Your task to perform on an android device: turn on javascript in the chrome app Image 0: 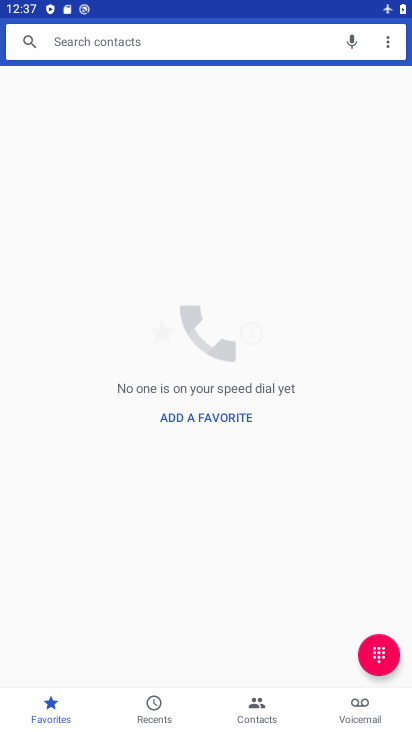
Step 0: press home button
Your task to perform on an android device: turn on javascript in the chrome app Image 1: 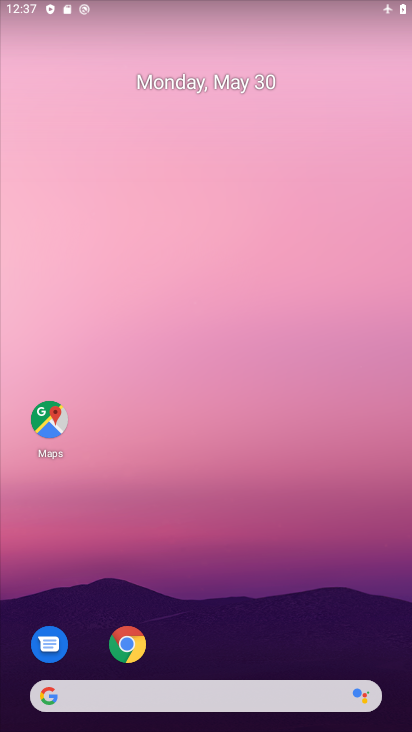
Step 1: drag from (373, 596) to (371, 176)
Your task to perform on an android device: turn on javascript in the chrome app Image 2: 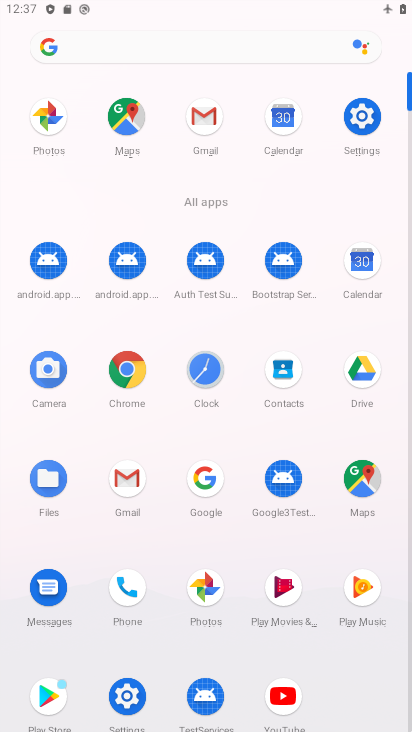
Step 2: click (142, 382)
Your task to perform on an android device: turn on javascript in the chrome app Image 3: 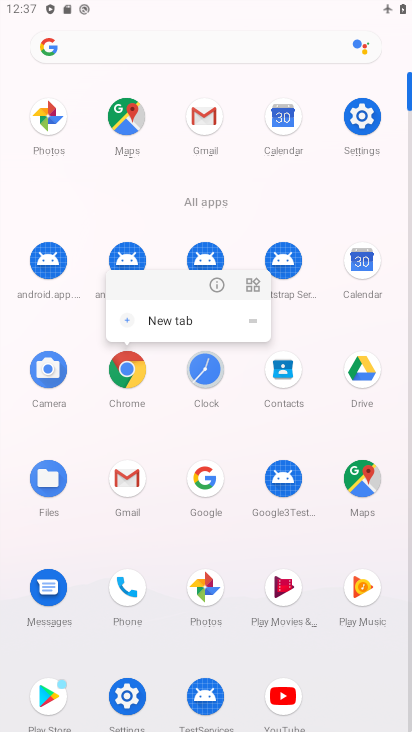
Step 3: click (136, 388)
Your task to perform on an android device: turn on javascript in the chrome app Image 4: 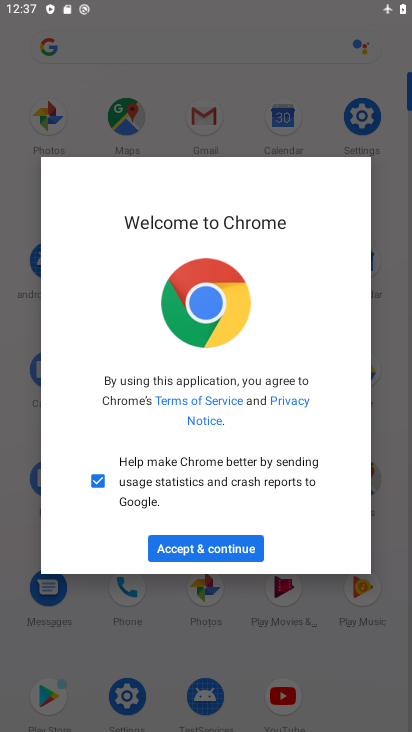
Step 4: click (242, 550)
Your task to perform on an android device: turn on javascript in the chrome app Image 5: 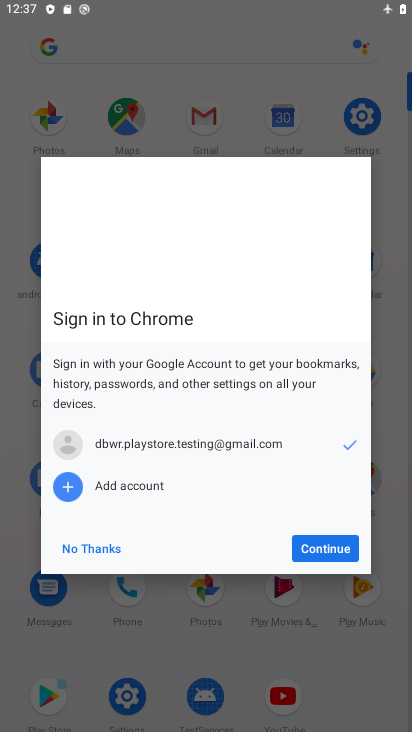
Step 5: click (321, 550)
Your task to perform on an android device: turn on javascript in the chrome app Image 6: 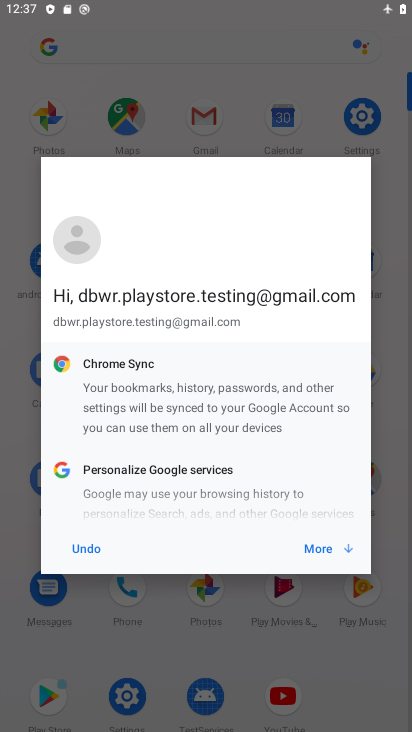
Step 6: click (321, 550)
Your task to perform on an android device: turn on javascript in the chrome app Image 7: 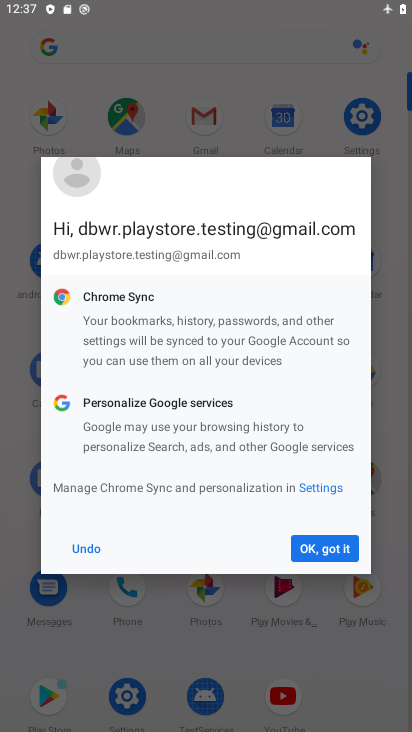
Step 7: click (321, 550)
Your task to perform on an android device: turn on javascript in the chrome app Image 8: 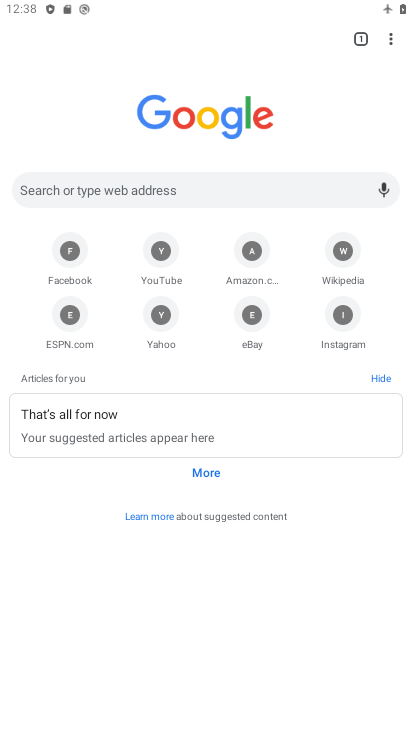
Step 8: drag from (396, 42) to (286, 332)
Your task to perform on an android device: turn on javascript in the chrome app Image 9: 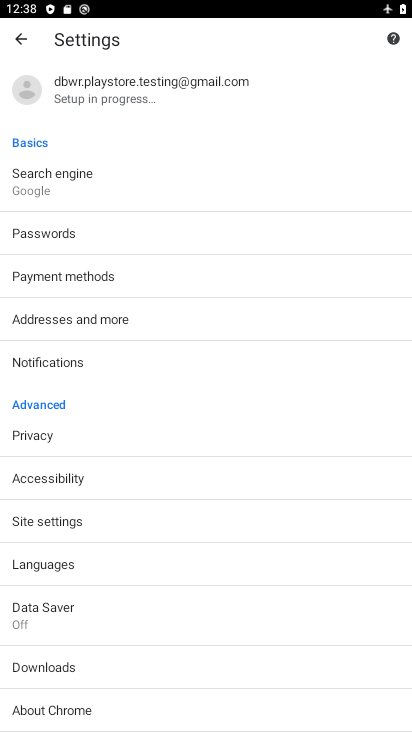
Step 9: click (103, 522)
Your task to perform on an android device: turn on javascript in the chrome app Image 10: 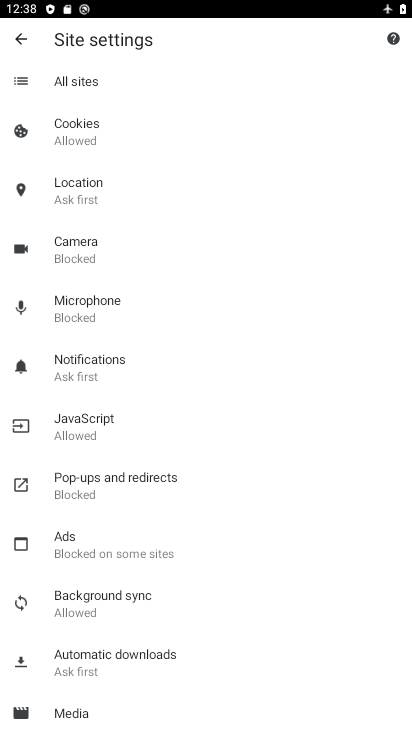
Step 10: click (132, 418)
Your task to perform on an android device: turn on javascript in the chrome app Image 11: 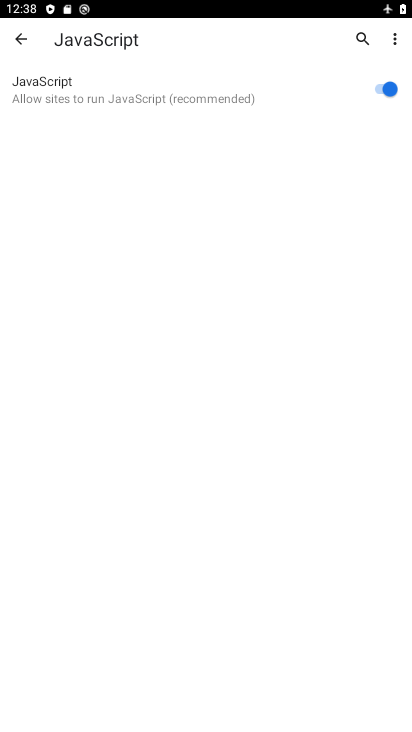
Step 11: task complete